Your task to perform on an android device: turn on the 12-hour format for clock Image 0: 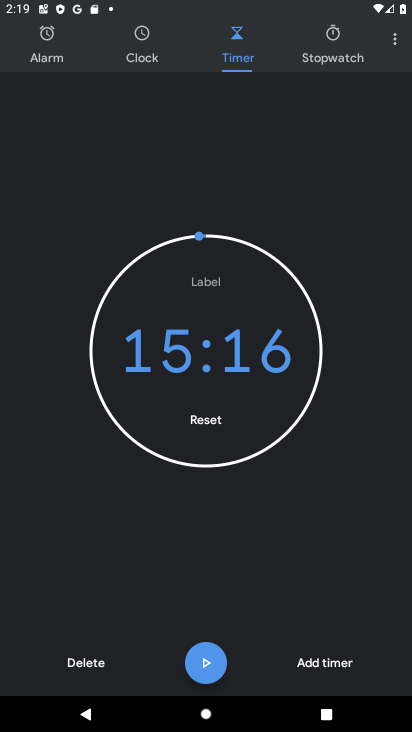
Step 0: press home button
Your task to perform on an android device: turn on the 12-hour format for clock Image 1: 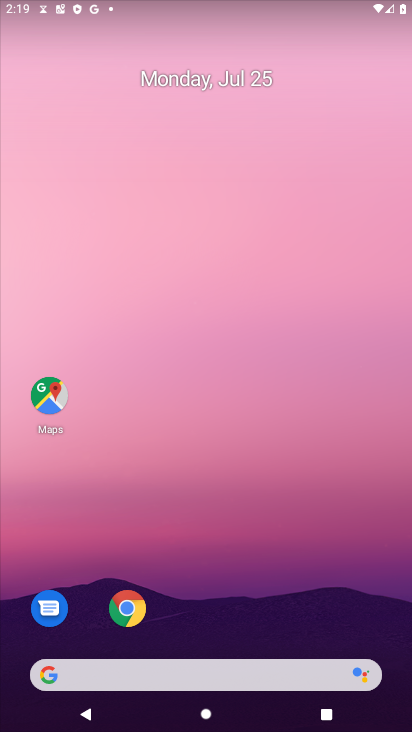
Step 1: drag from (193, 679) to (207, 19)
Your task to perform on an android device: turn on the 12-hour format for clock Image 2: 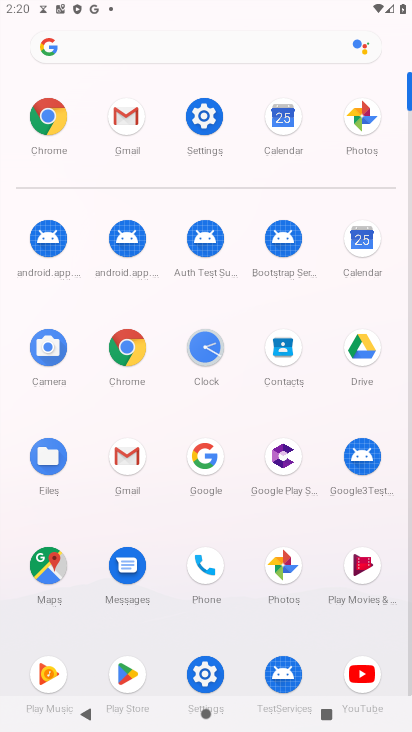
Step 2: click (205, 345)
Your task to perform on an android device: turn on the 12-hour format for clock Image 3: 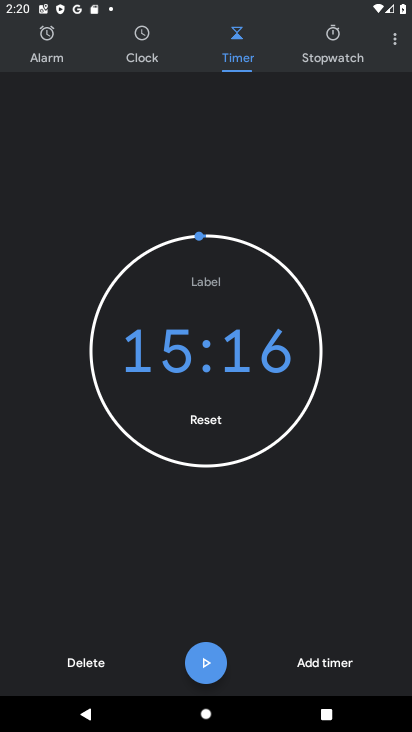
Step 3: click (395, 40)
Your task to perform on an android device: turn on the 12-hour format for clock Image 4: 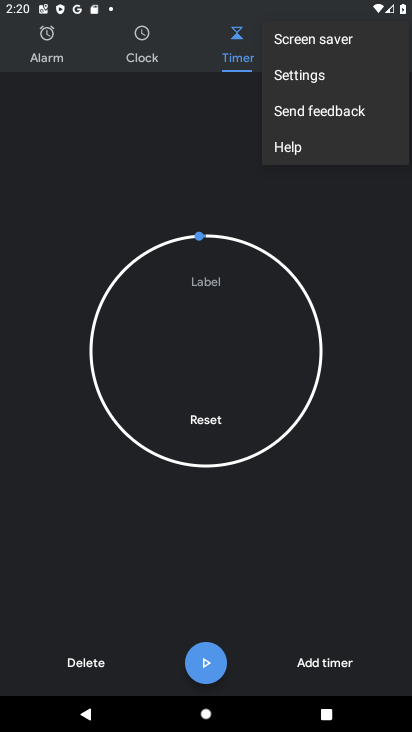
Step 4: click (314, 77)
Your task to perform on an android device: turn on the 12-hour format for clock Image 5: 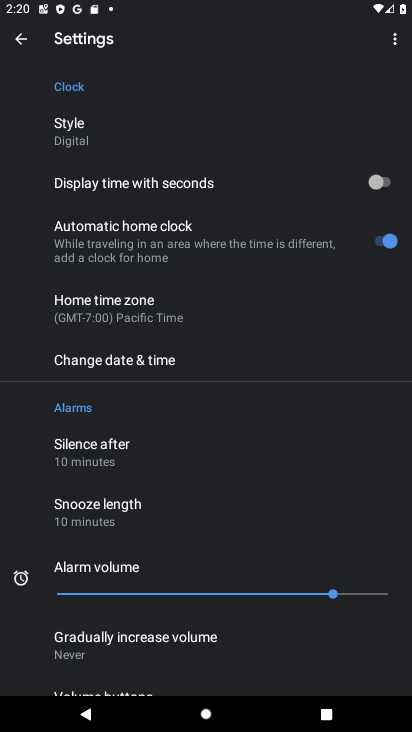
Step 5: click (111, 365)
Your task to perform on an android device: turn on the 12-hour format for clock Image 6: 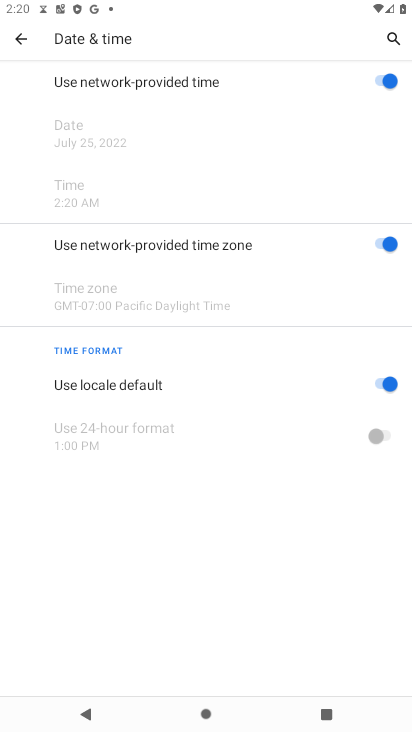
Step 6: task complete